Your task to perform on an android device: Open the stopwatch Image 0: 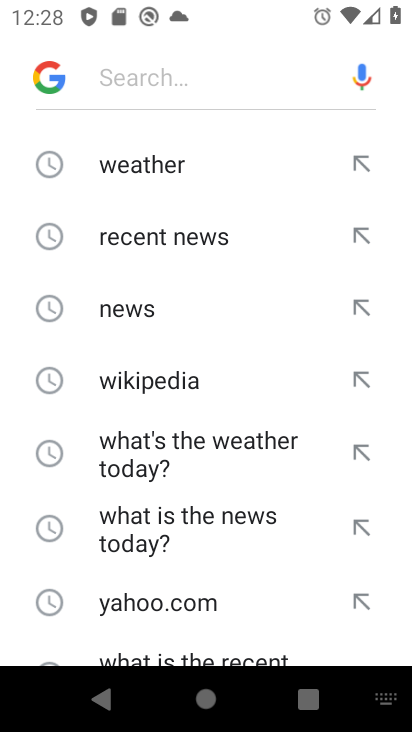
Step 0: press home button
Your task to perform on an android device: Open the stopwatch Image 1: 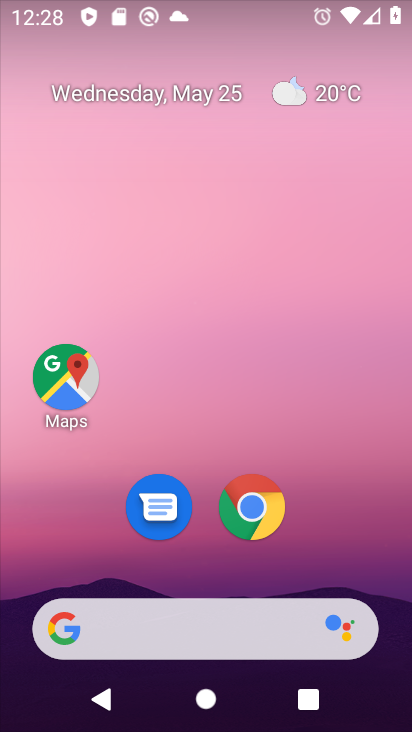
Step 1: drag from (350, 496) to (346, 59)
Your task to perform on an android device: Open the stopwatch Image 2: 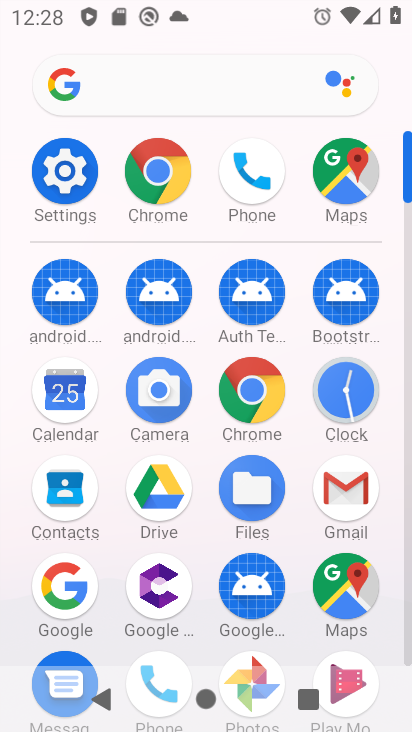
Step 2: click (337, 385)
Your task to perform on an android device: Open the stopwatch Image 3: 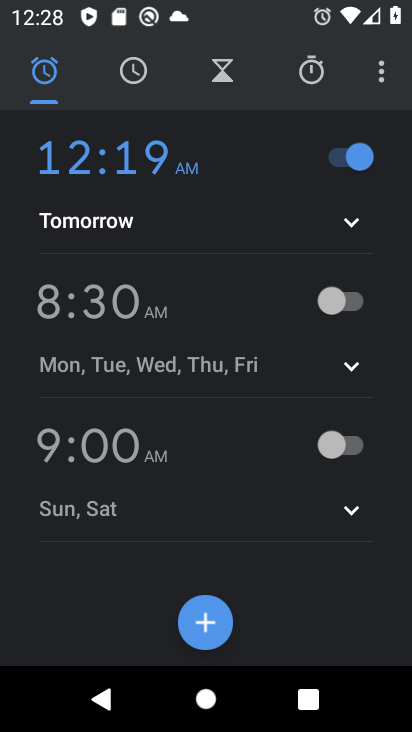
Step 3: click (318, 85)
Your task to perform on an android device: Open the stopwatch Image 4: 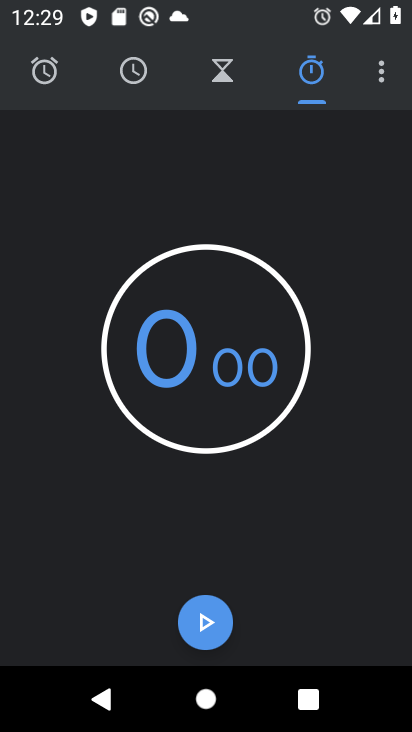
Step 4: task complete